Your task to perform on an android device: Search for the best selling vase on Crate & Barrel Image 0: 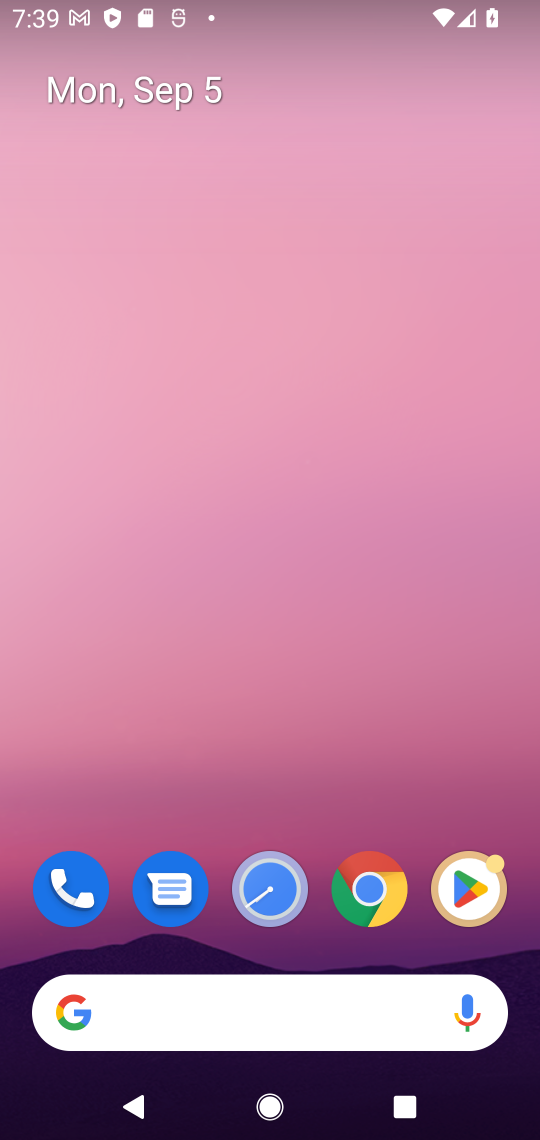
Step 0: click (230, 1007)
Your task to perform on an android device: Search for the best selling vase on Crate & Barrel Image 1: 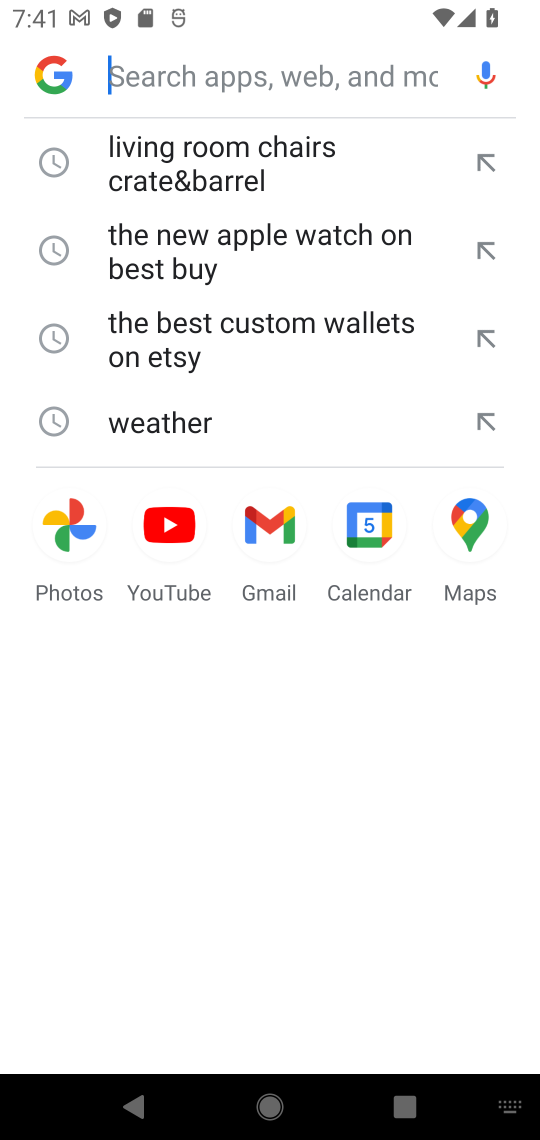
Step 1: click (201, 145)
Your task to perform on an android device: Search for the best selling vase on Crate & Barrel Image 2: 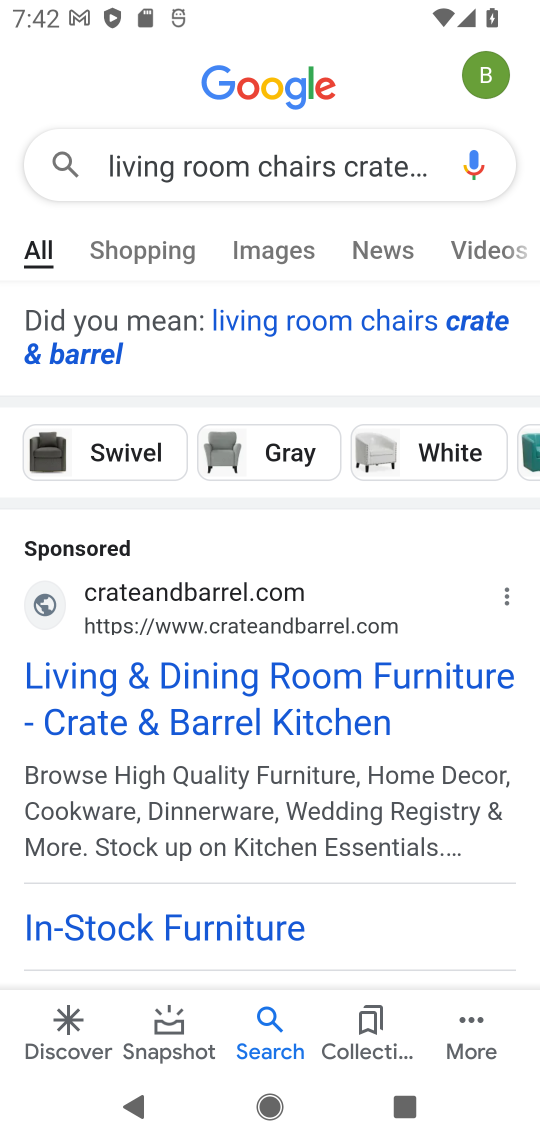
Step 2: task complete